Your task to perform on an android device: Do I have any events today? Image 0: 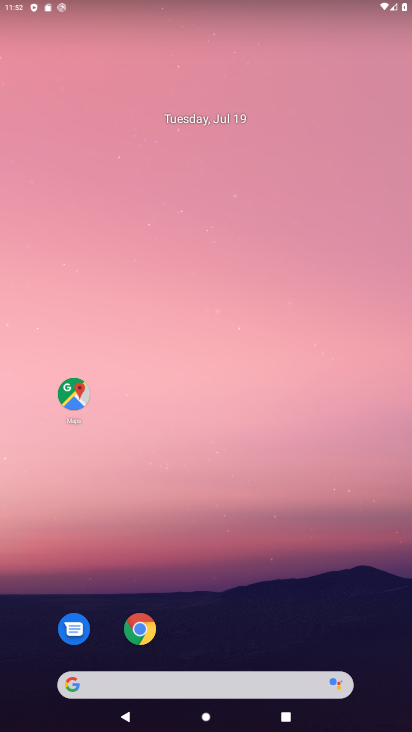
Step 0: drag from (183, 603) to (197, 162)
Your task to perform on an android device: Do I have any events today? Image 1: 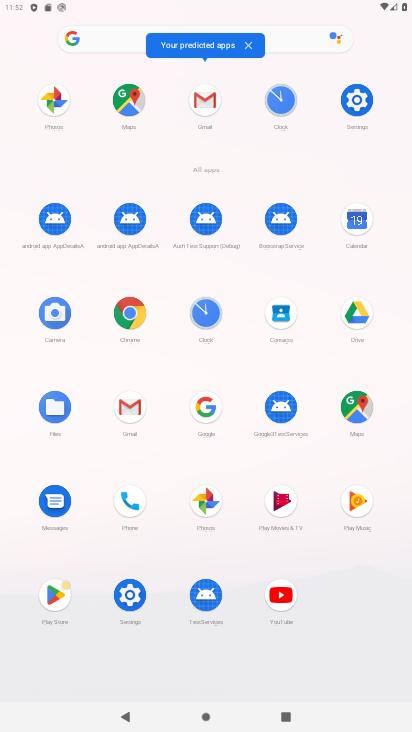
Step 1: click (359, 226)
Your task to perform on an android device: Do I have any events today? Image 2: 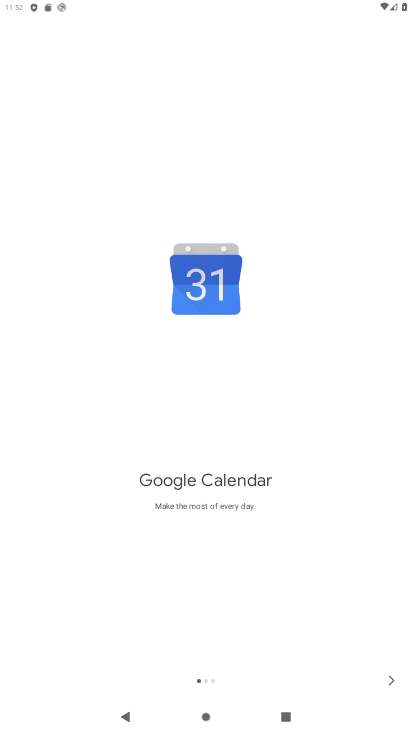
Step 2: drag from (354, 513) to (326, 304)
Your task to perform on an android device: Do I have any events today? Image 3: 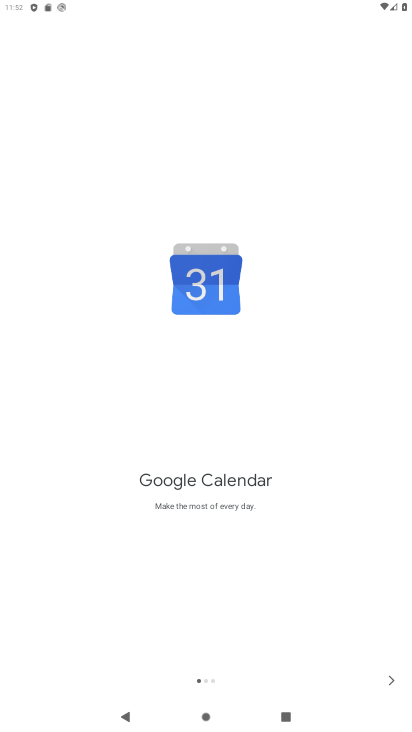
Step 3: click (388, 675)
Your task to perform on an android device: Do I have any events today? Image 4: 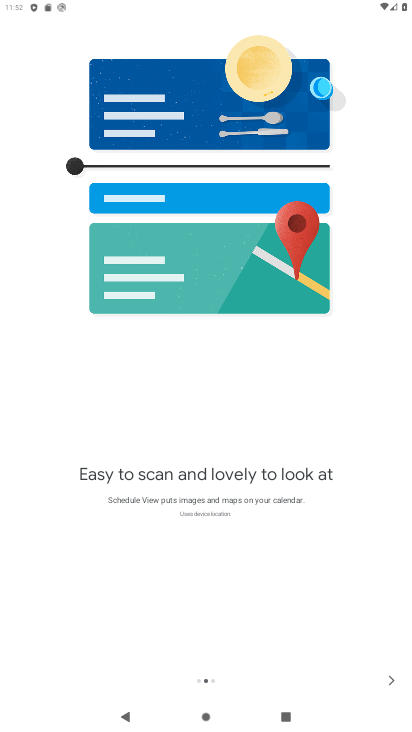
Step 4: click (388, 675)
Your task to perform on an android device: Do I have any events today? Image 5: 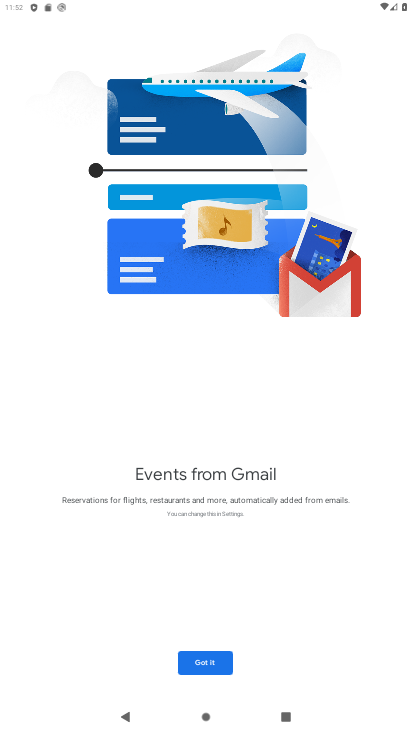
Step 5: click (387, 675)
Your task to perform on an android device: Do I have any events today? Image 6: 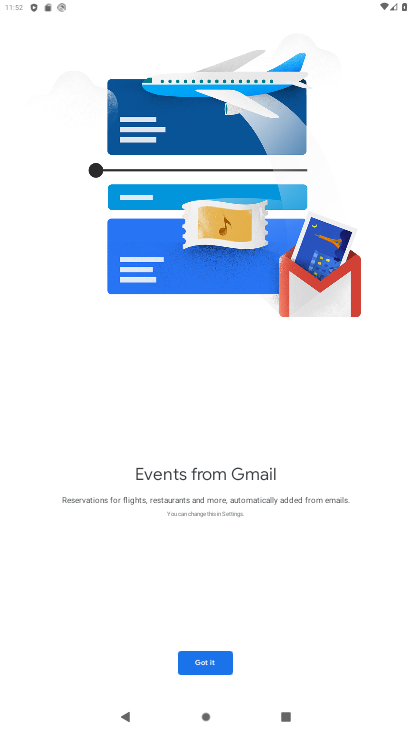
Step 6: click (189, 663)
Your task to perform on an android device: Do I have any events today? Image 7: 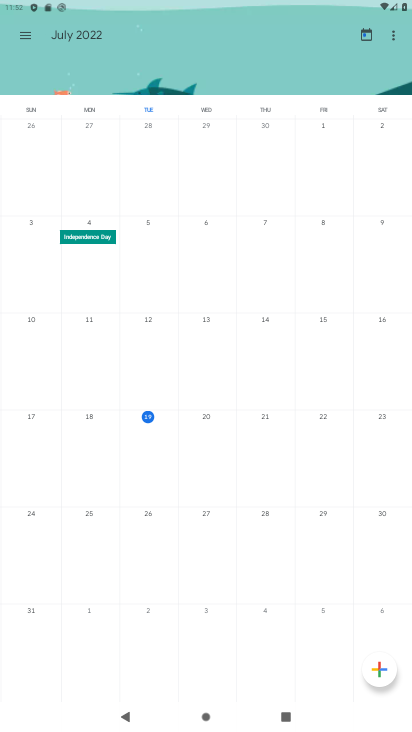
Step 7: drag from (203, 521) to (203, 422)
Your task to perform on an android device: Do I have any events today? Image 8: 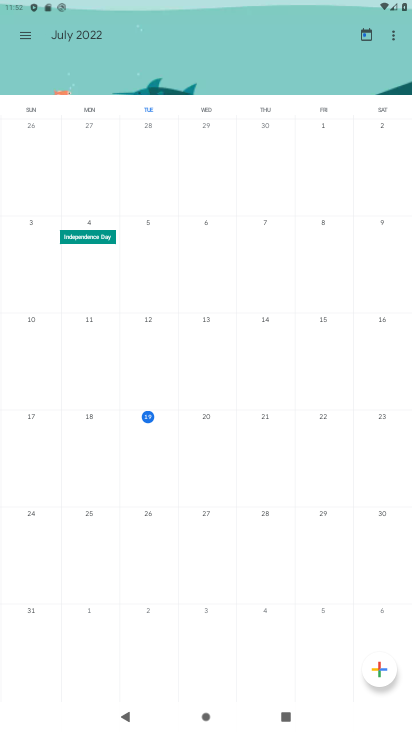
Step 8: click (363, 36)
Your task to perform on an android device: Do I have any events today? Image 9: 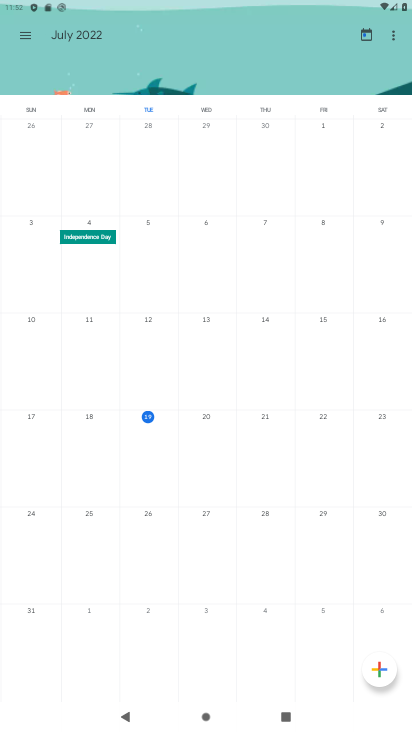
Step 9: click (363, 36)
Your task to perform on an android device: Do I have any events today? Image 10: 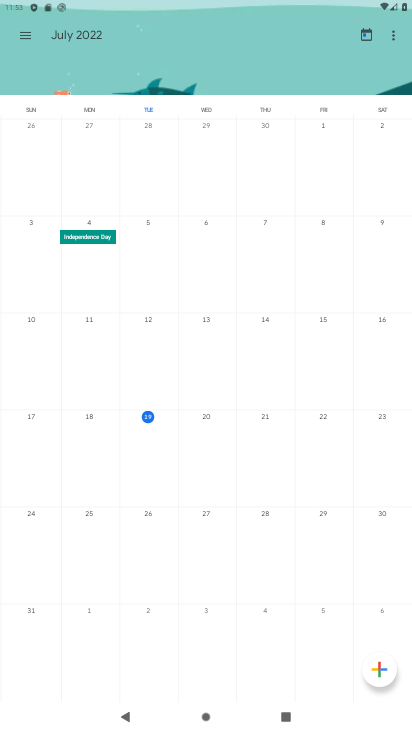
Step 10: task complete